Your task to perform on an android device: empty trash in google photos Image 0: 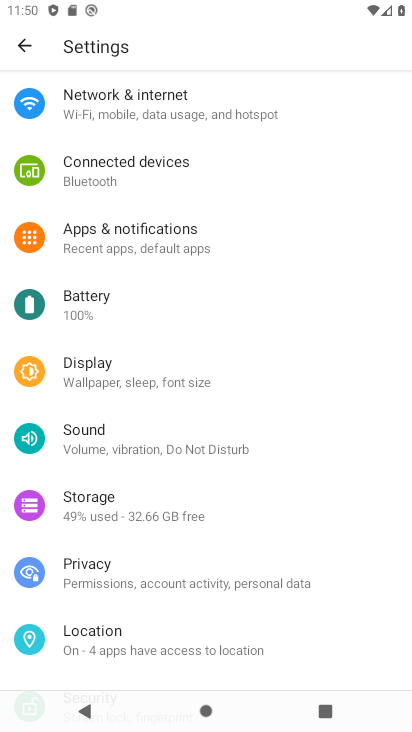
Step 0: press home button
Your task to perform on an android device: empty trash in google photos Image 1: 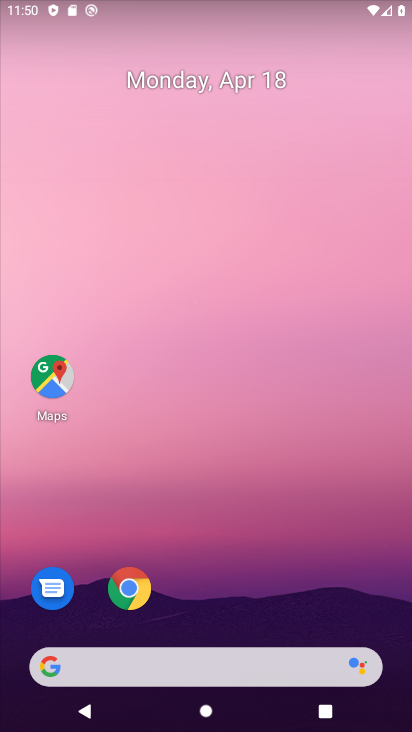
Step 1: drag from (388, 620) to (364, 78)
Your task to perform on an android device: empty trash in google photos Image 2: 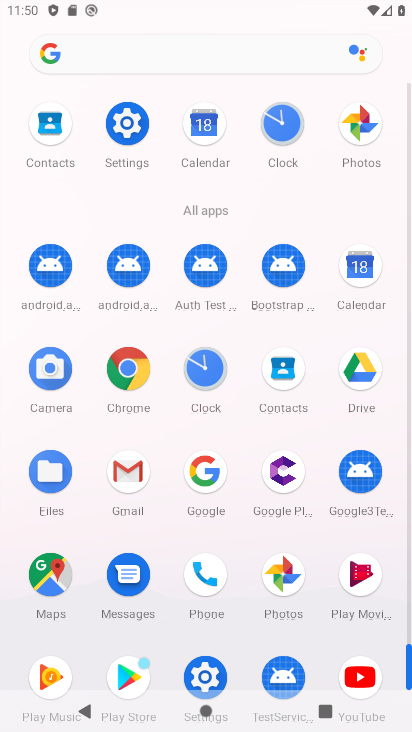
Step 2: click (366, 124)
Your task to perform on an android device: empty trash in google photos Image 3: 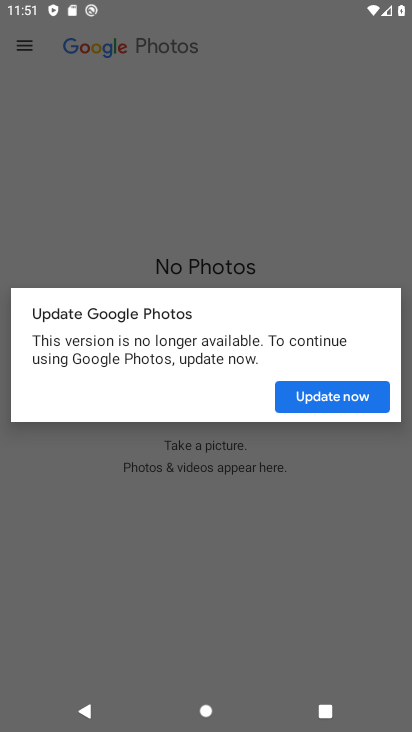
Step 3: click (344, 402)
Your task to perform on an android device: empty trash in google photos Image 4: 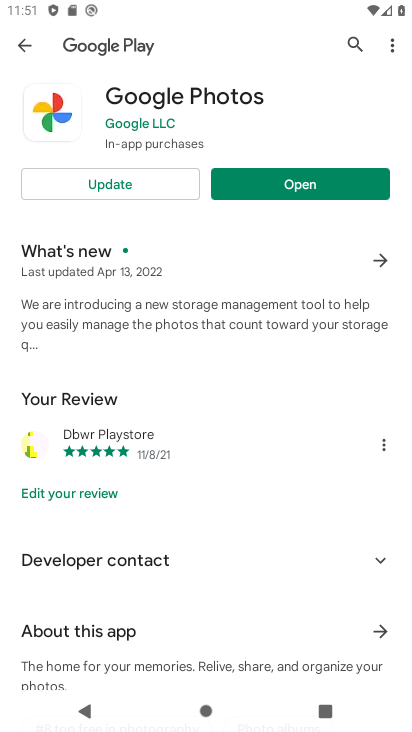
Step 4: click (128, 186)
Your task to perform on an android device: empty trash in google photos Image 5: 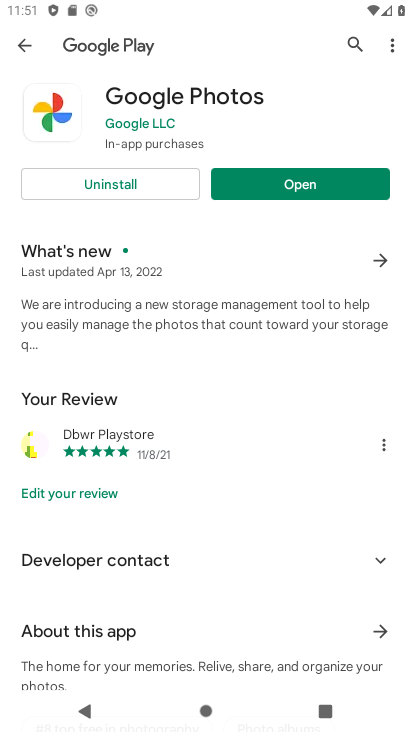
Step 5: click (274, 185)
Your task to perform on an android device: empty trash in google photos Image 6: 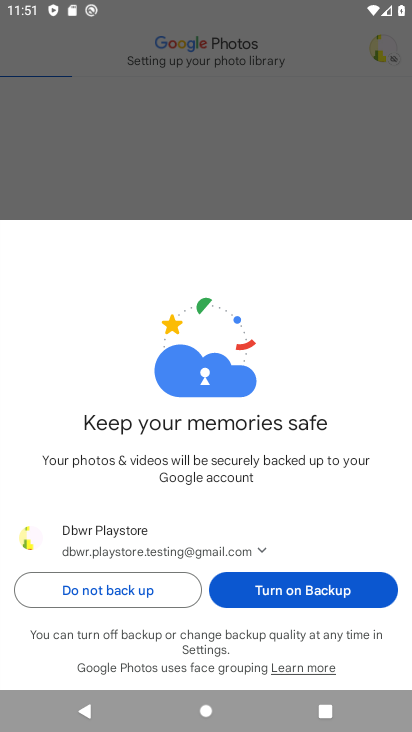
Step 6: drag from (236, 504) to (267, 433)
Your task to perform on an android device: empty trash in google photos Image 7: 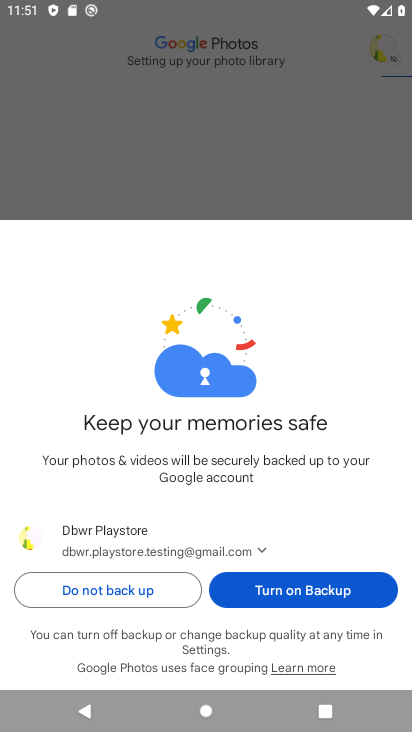
Step 7: click (311, 595)
Your task to perform on an android device: empty trash in google photos Image 8: 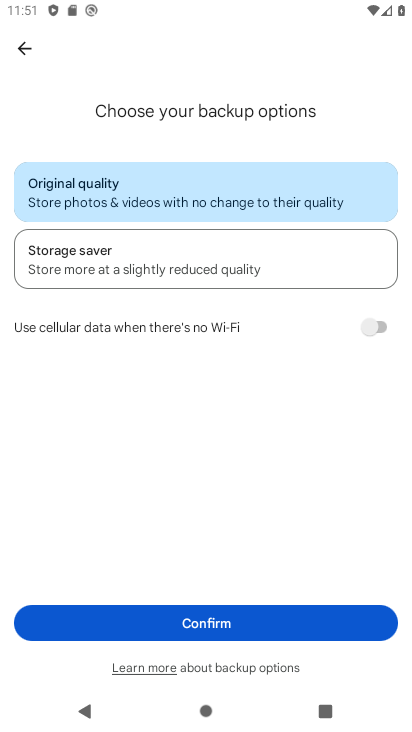
Step 8: click (255, 620)
Your task to perform on an android device: empty trash in google photos Image 9: 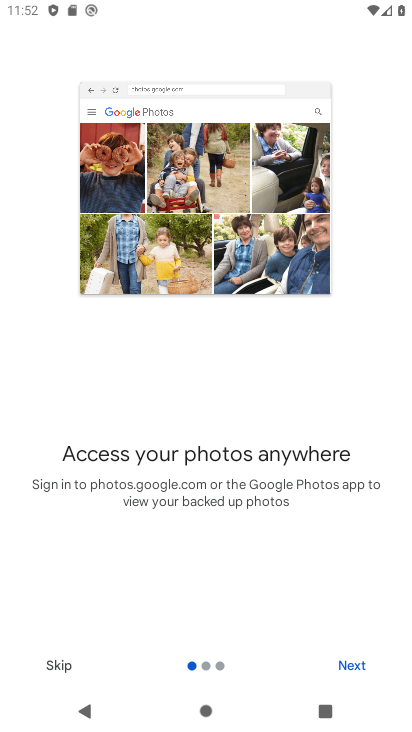
Step 9: click (359, 669)
Your task to perform on an android device: empty trash in google photos Image 10: 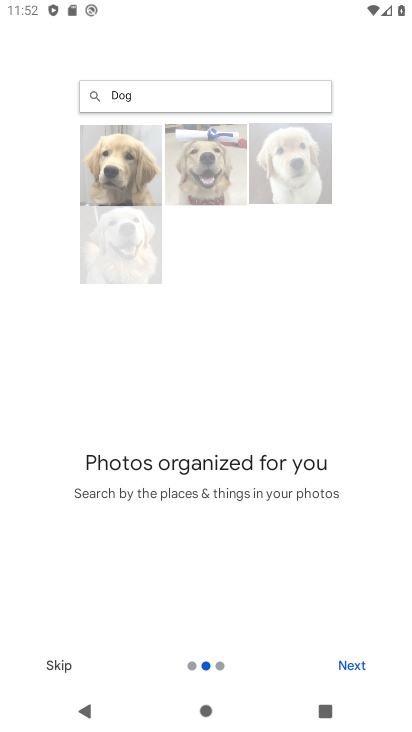
Step 10: click (357, 658)
Your task to perform on an android device: empty trash in google photos Image 11: 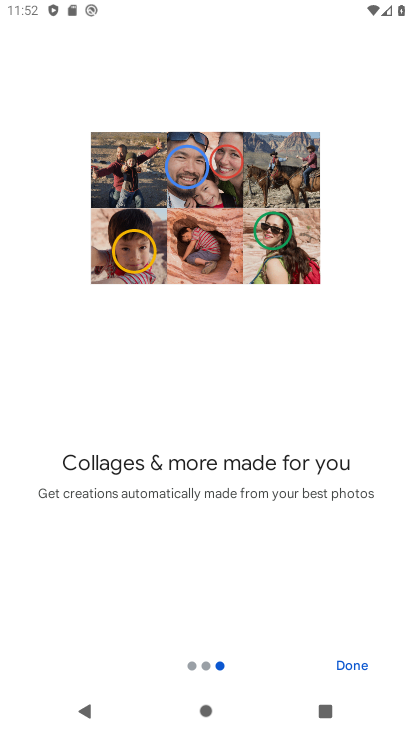
Step 11: click (358, 664)
Your task to perform on an android device: empty trash in google photos Image 12: 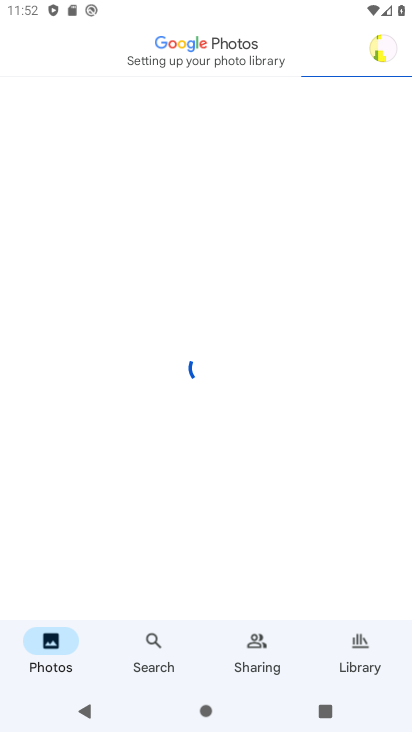
Step 12: click (382, 39)
Your task to perform on an android device: empty trash in google photos Image 13: 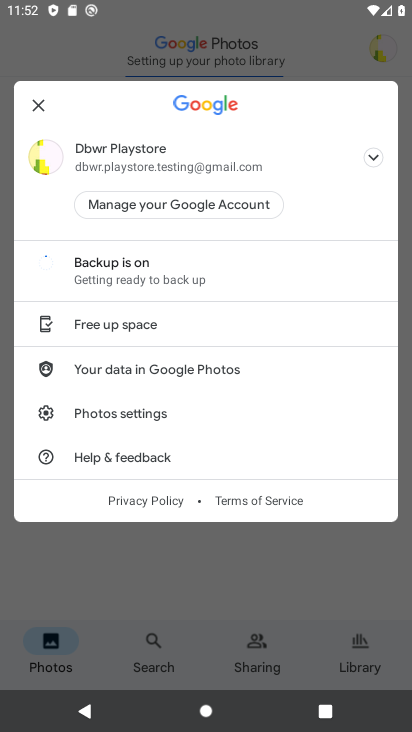
Step 13: task complete